Your task to perform on an android device: What's on my calendar today? Image 0: 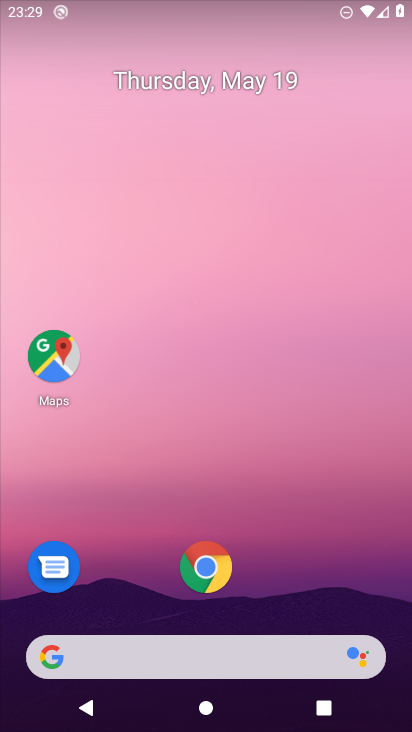
Step 0: drag from (273, 593) to (347, 96)
Your task to perform on an android device: What's on my calendar today? Image 1: 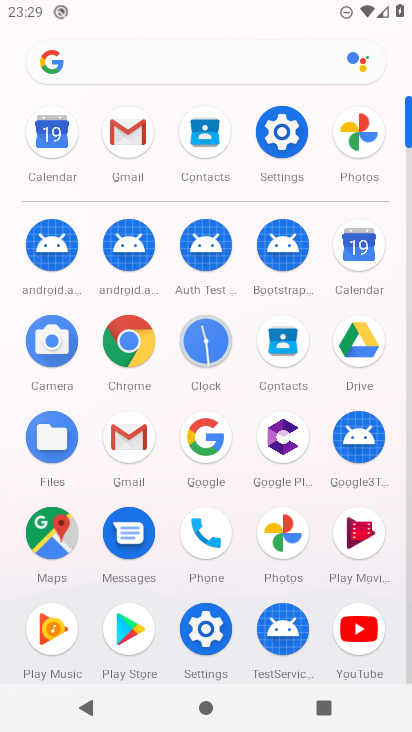
Step 1: click (357, 237)
Your task to perform on an android device: What's on my calendar today? Image 2: 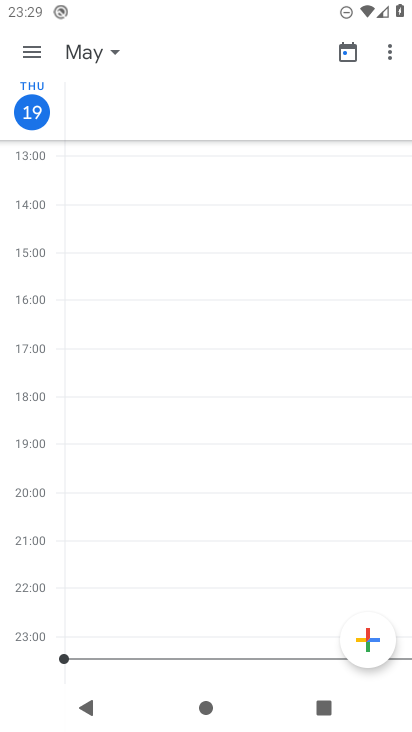
Step 2: task complete